Your task to perform on an android device: change the clock style Image 0: 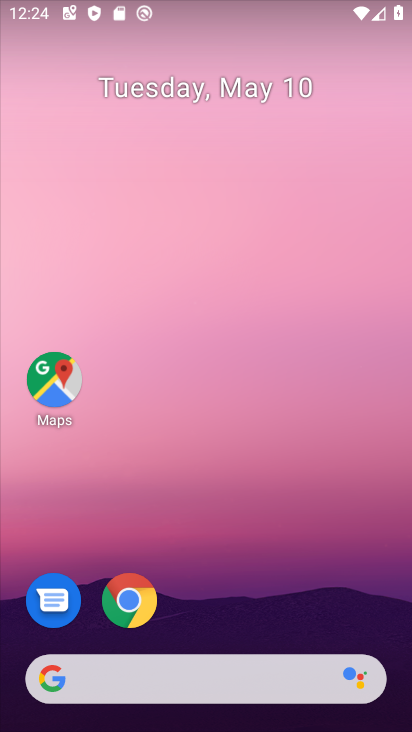
Step 0: drag from (212, 664) to (214, 251)
Your task to perform on an android device: change the clock style Image 1: 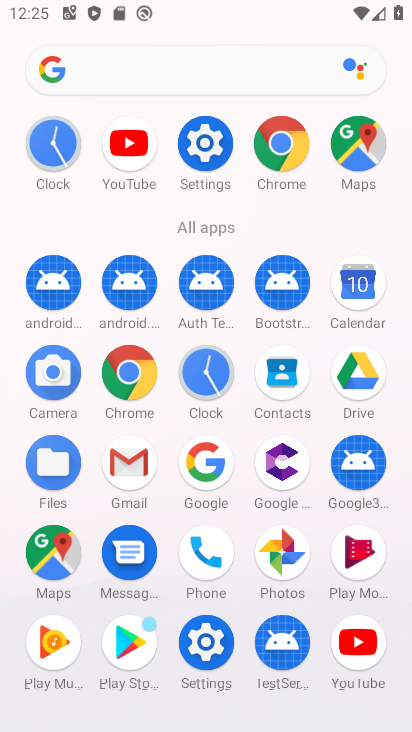
Step 1: click (204, 375)
Your task to perform on an android device: change the clock style Image 2: 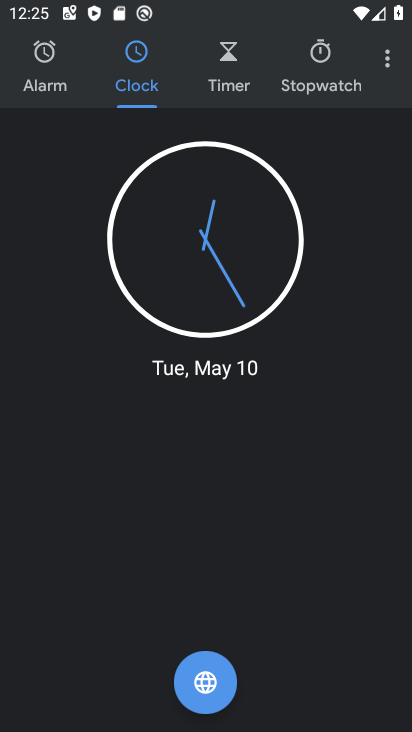
Step 2: click (378, 59)
Your task to perform on an android device: change the clock style Image 3: 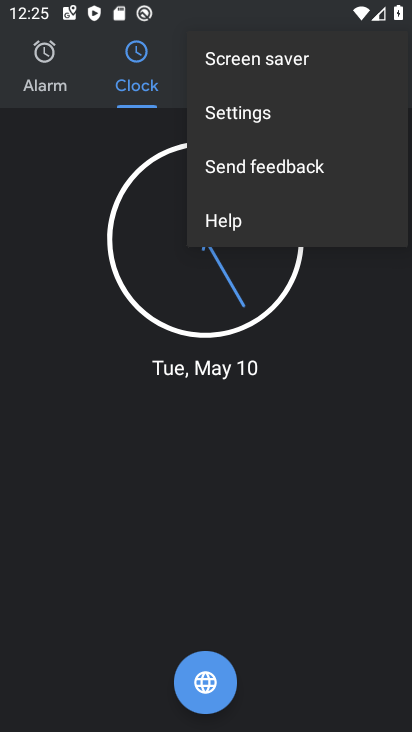
Step 3: click (257, 103)
Your task to perform on an android device: change the clock style Image 4: 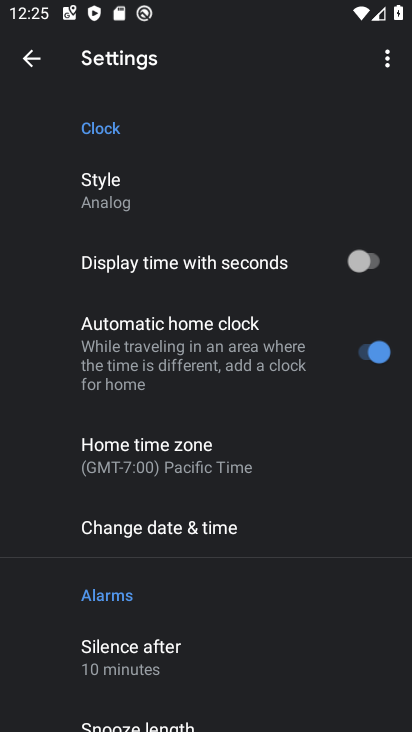
Step 4: click (171, 201)
Your task to perform on an android device: change the clock style Image 5: 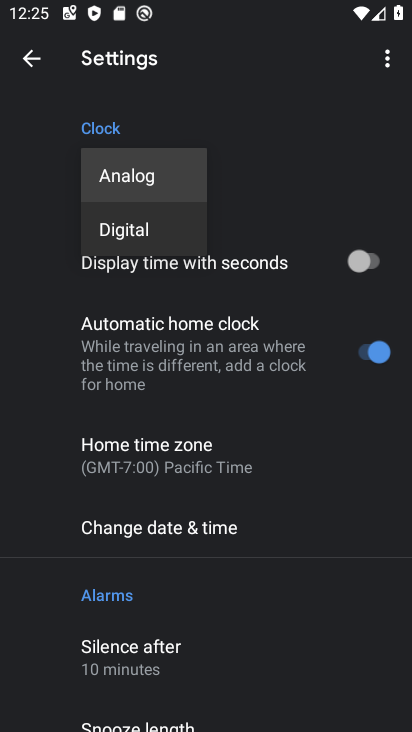
Step 5: click (135, 231)
Your task to perform on an android device: change the clock style Image 6: 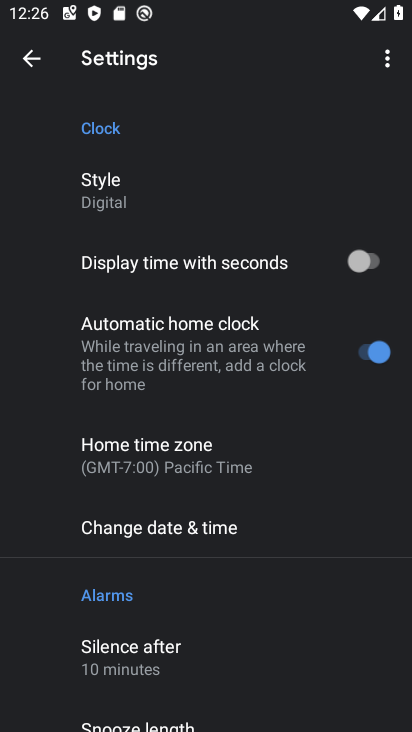
Step 6: task complete